Your task to perform on an android device: Go to calendar. Show me events next week Image 0: 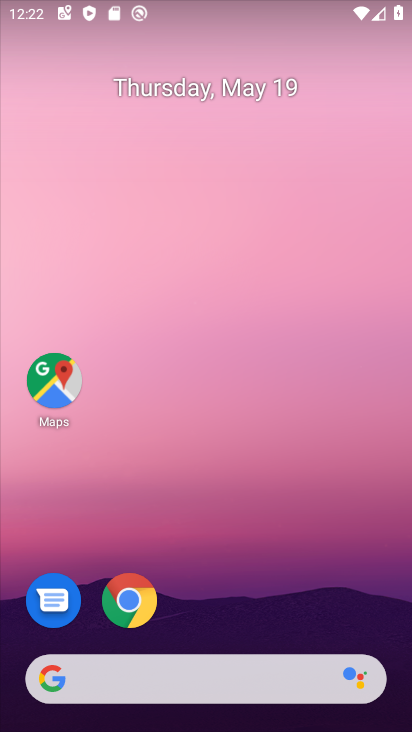
Step 0: drag from (253, 588) to (202, 31)
Your task to perform on an android device: Go to calendar. Show me events next week Image 1: 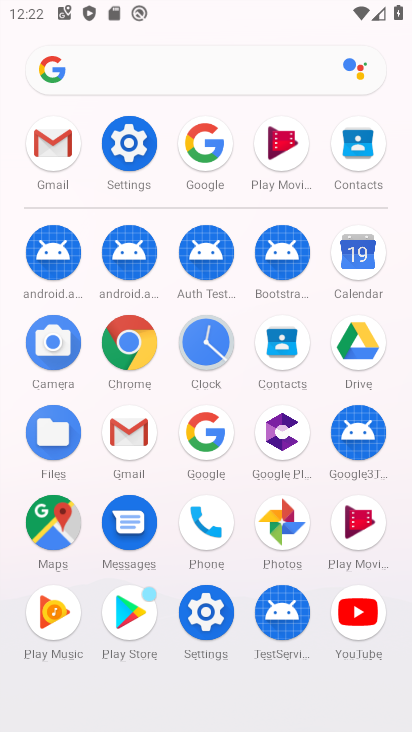
Step 1: click (341, 259)
Your task to perform on an android device: Go to calendar. Show me events next week Image 2: 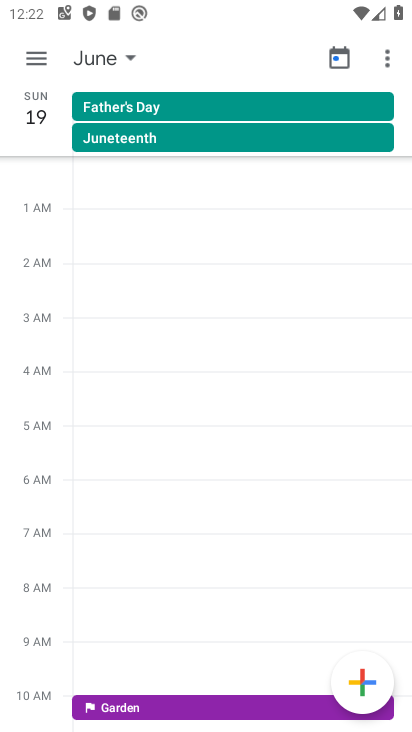
Step 2: click (44, 54)
Your task to perform on an android device: Go to calendar. Show me events next week Image 3: 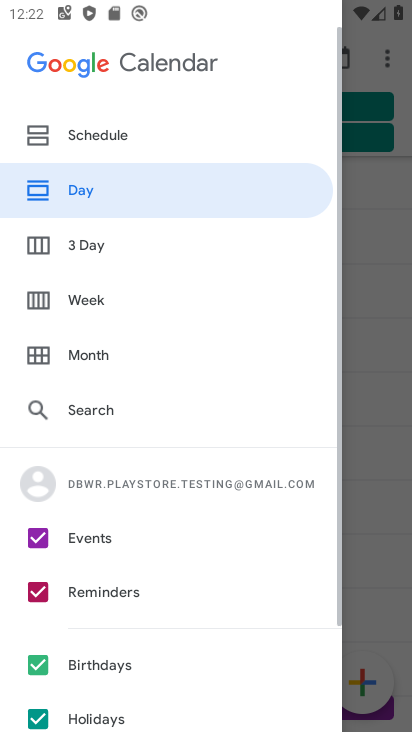
Step 3: click (132, 290)
Your task to perform on an android device: Go to calendar. Show me events next week Image 4: 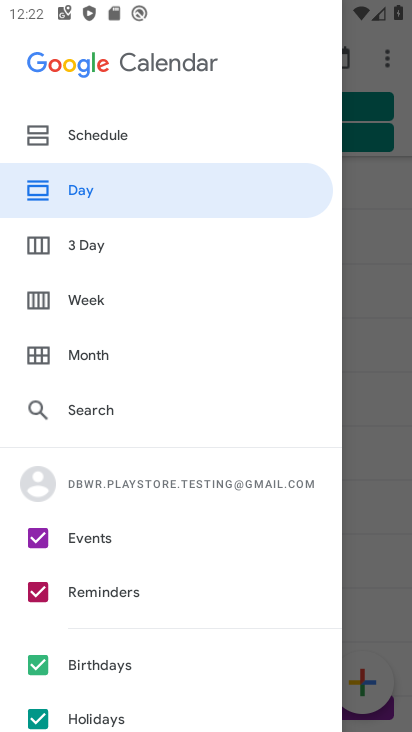
Step 4: click (90, 292)
Your task to perform on an android device: Go to calendar. Show me events next week Image 5: 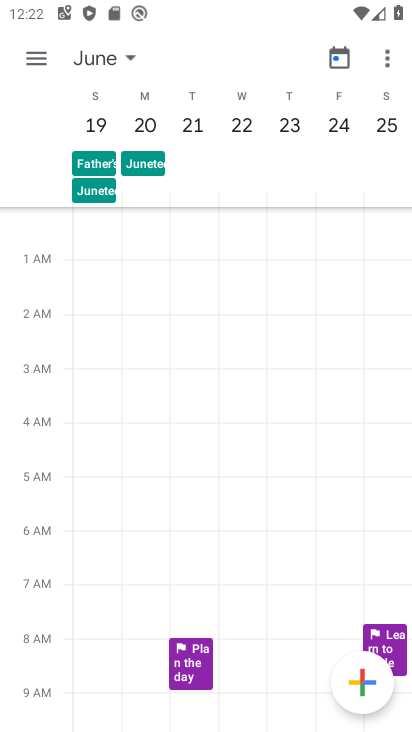
Step 5: click (129, 57)
Your task to perform on an android device: Go to calendar. Show me events next week Image 6: 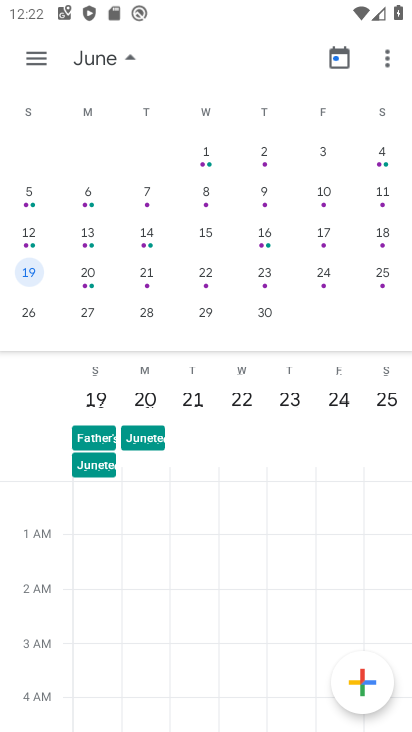
Step 6: drag from (51, 247) to (403, 186)
Your task to perform on an android device: Go to calendar. Show me events next week Image 7: 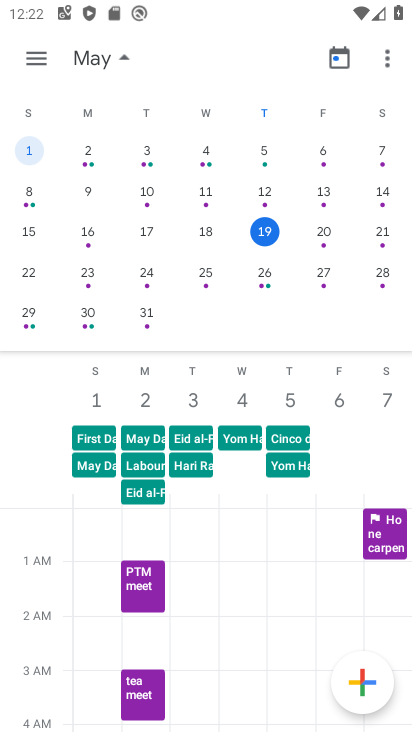
Step 7: click (46, 273)
Your task to perform on an android device: Go to calendar. Show me events next week Image 8: 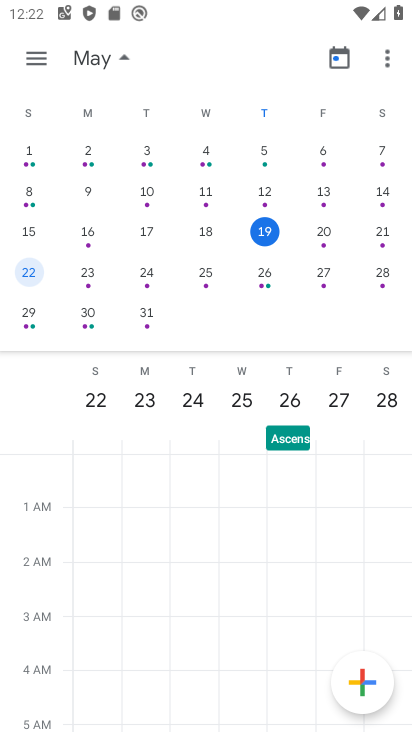
Step 8: task complete